Your task to perform on an android device: View the shopping cart on walmart.com. Search for logitech g502 on walmart.com, select the first entry, and add it to the cart. Image 0: 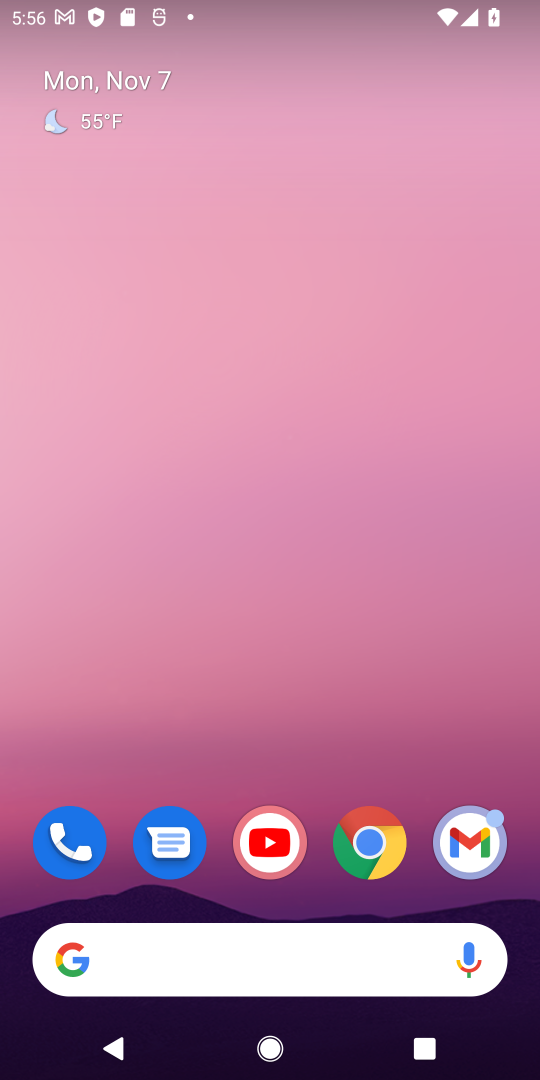
Step 0: click (170, 949)
Your task to perform on an android device: View the shopping cart on walmart.com. Search for logitech g502 on walmart.com, select the first entry, and add it to the cart. Image 1: 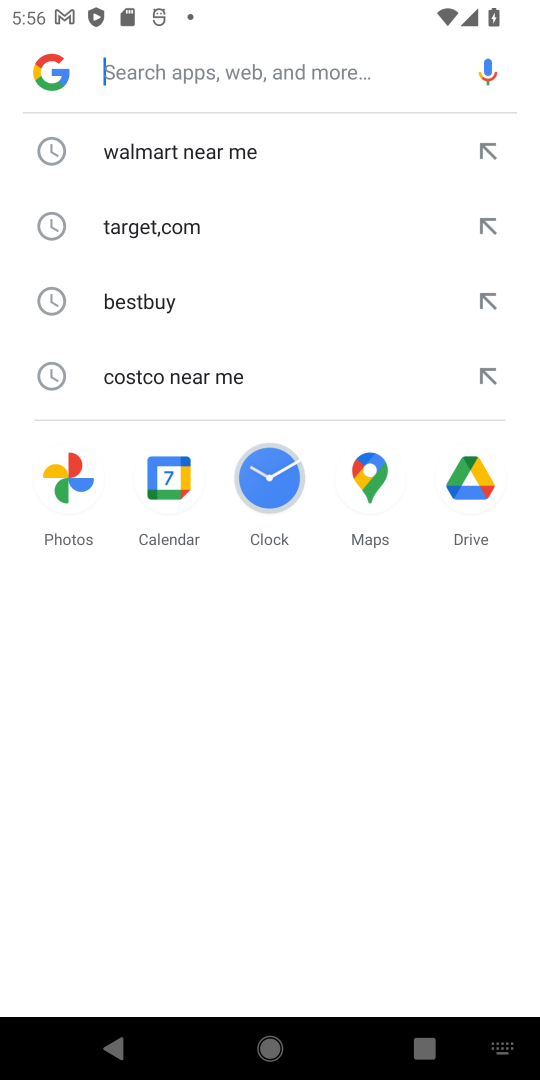
Step 1: type " walmart.com"
Your task to perform on an android device: View the shopping cart on walmart.com. Search for logitech g502 on walmart.com, select the first entry, and add it to the cart. Image 2: 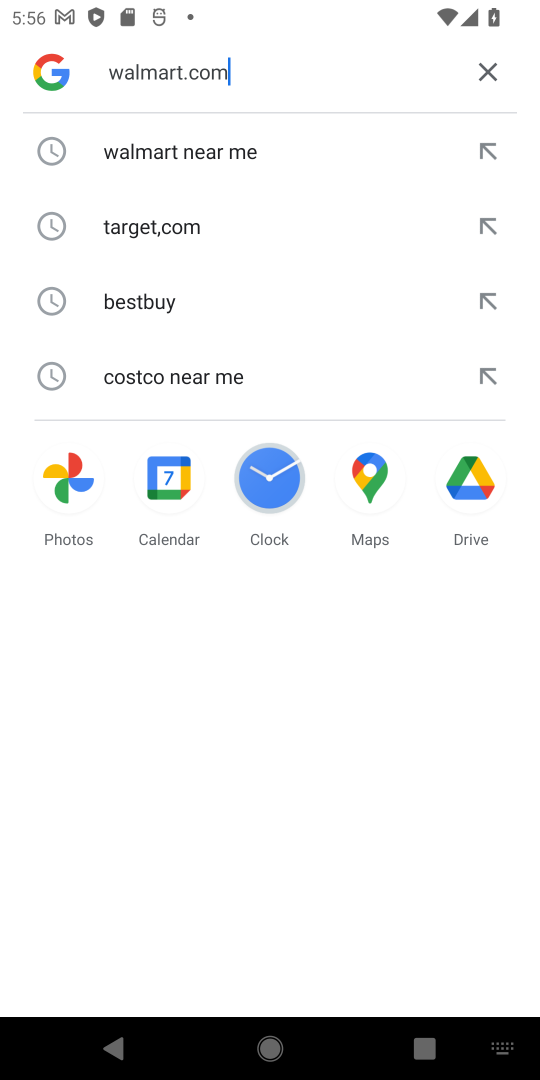
Step 2: press enter
Your task to perform on an android device: View the shopping cart on walmart.com. Search for logitech g502 on walmart.com, select the first entry, and add it to the cart. Image 3: 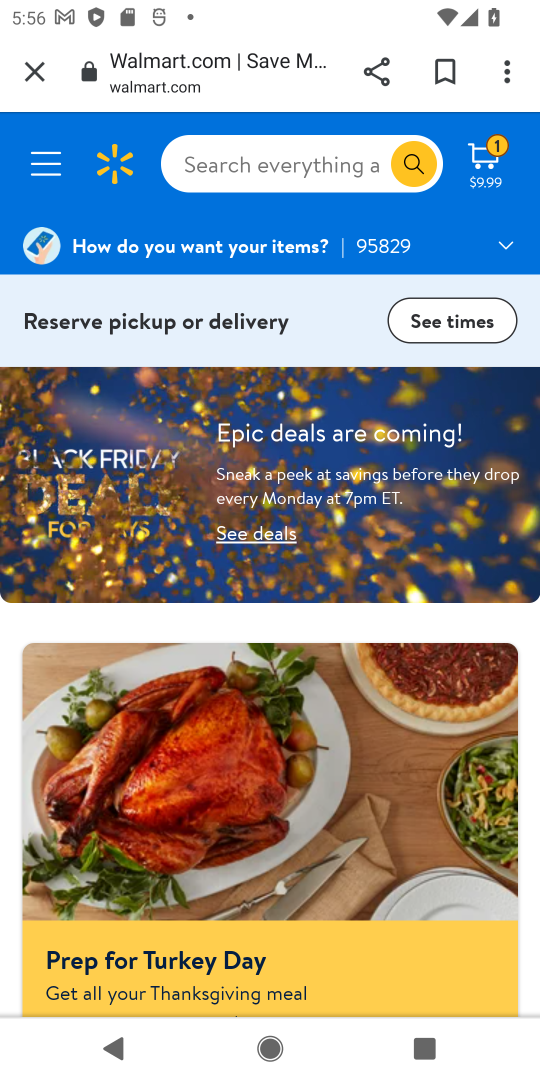
Step 3: click (272, 168)
Your task to perform on an android device: View the shopping cart on walmart.com. Search for logitech g502 on walmart.com, select the first entry, and add it to the cart. Image 4: 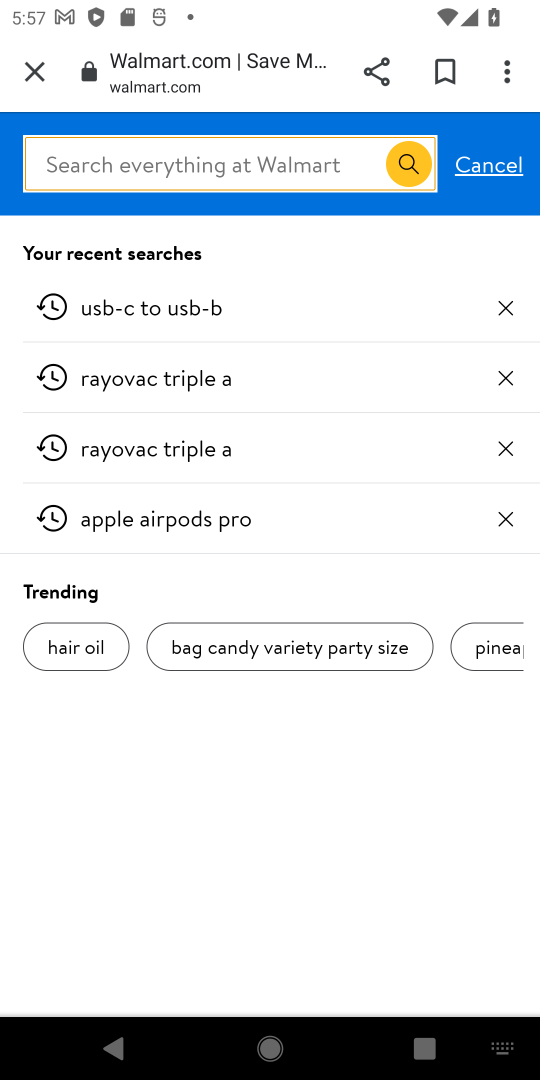
Step 4: type "logitech g502"
Your task to perform on an android device: View the shopping cart on walmart.com. Search for logitech g502 on walmart.com, select the first entry, and add it to the cart. Image 5: 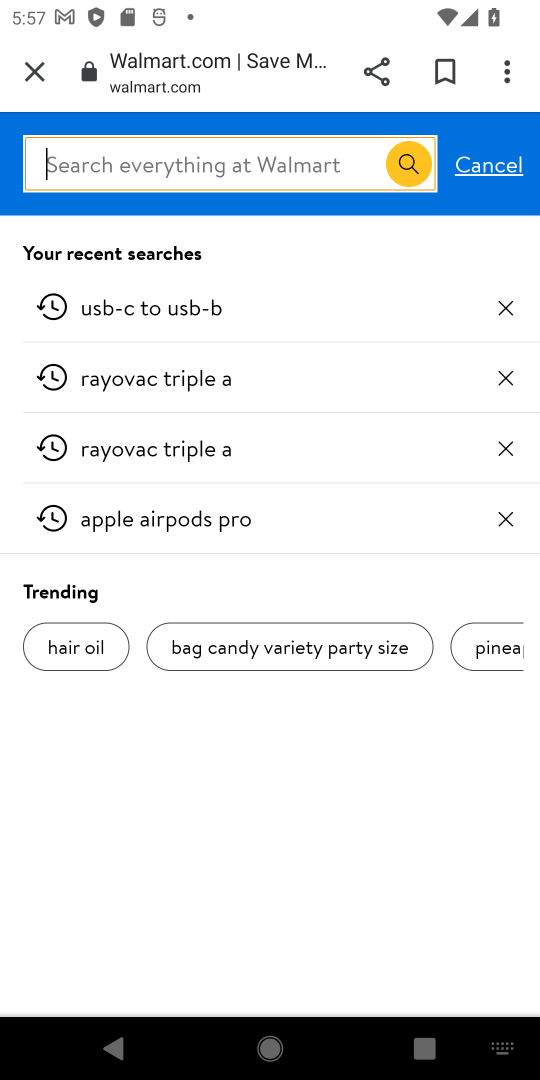
Step 5: press enter
Your task to perform on an android device: View the shopping cart on walmart.com. Search for logitech g502 on walmart.com, select the first entry, and add it to the cart. Image 6: 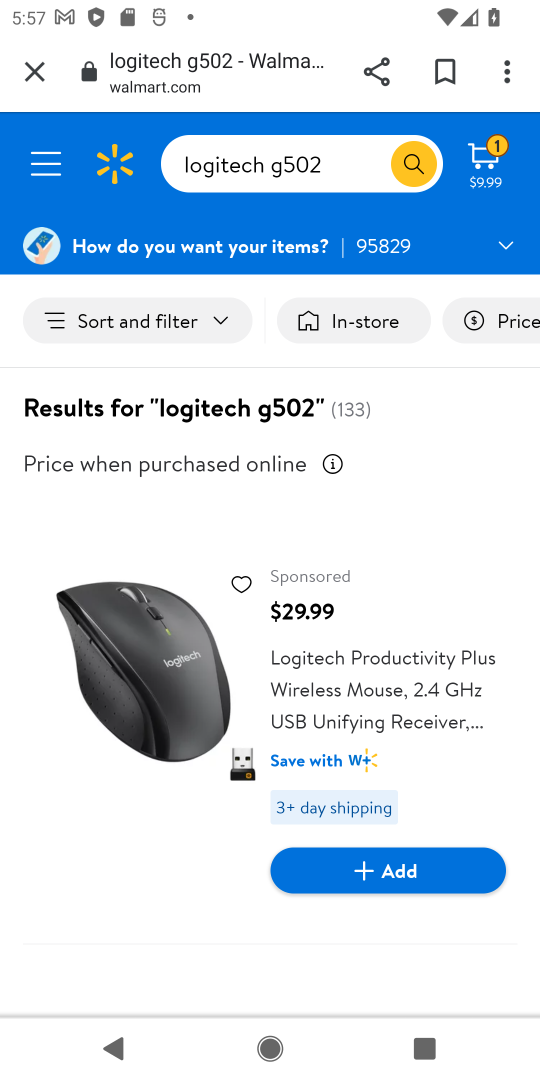
Step 6: task complete